Your task to perform on an android device: toggle airplane mode Image 0: 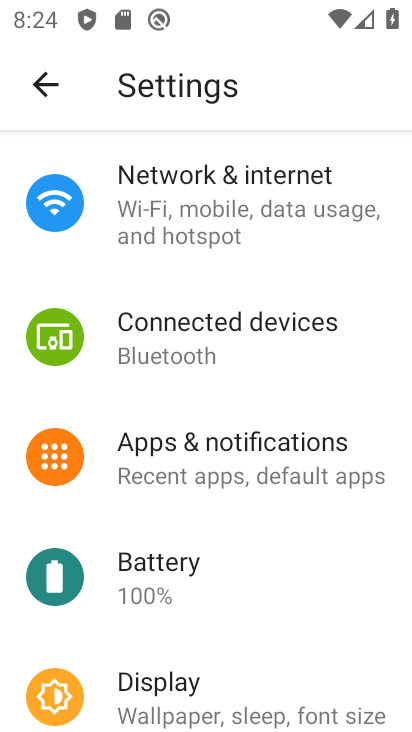
Step 0: click (255, 208)
Your task to perform on an android device: toggle airplane mode Image 1: 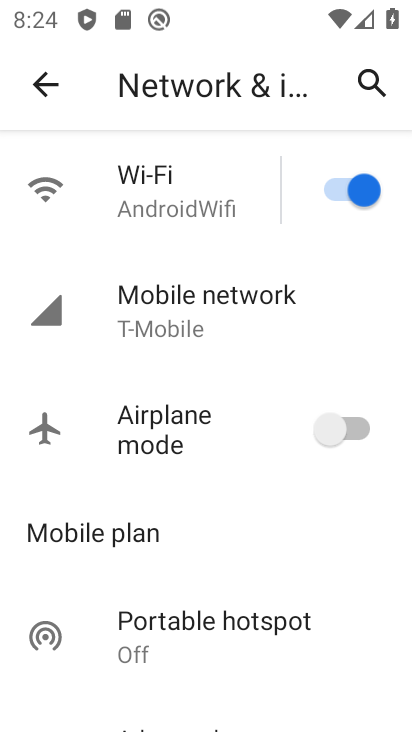
Step 1: click (353, 435)
Your task to perform on an android device: toggle airplane mode Image 2: 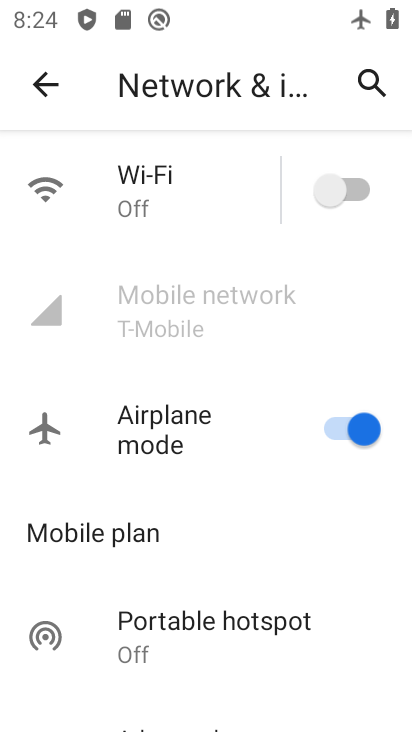
Step 2: task complete